Your task to perform on an android device: turn on translation in the chrome app Image 0: 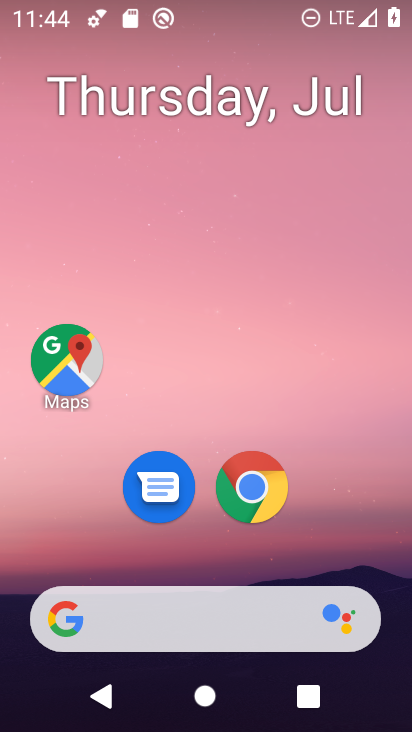
Step 0: click (375, 345)
Your task to perform on an android device: turn on translation in the chrome app Image 1: 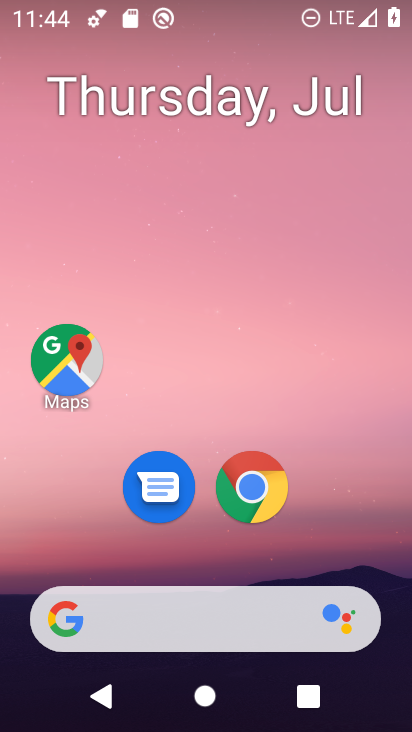
Step 1: drag from (216, 695) to (189, 236)
Your task to perform on an android device: turn on translation in the chrome app Image 2: 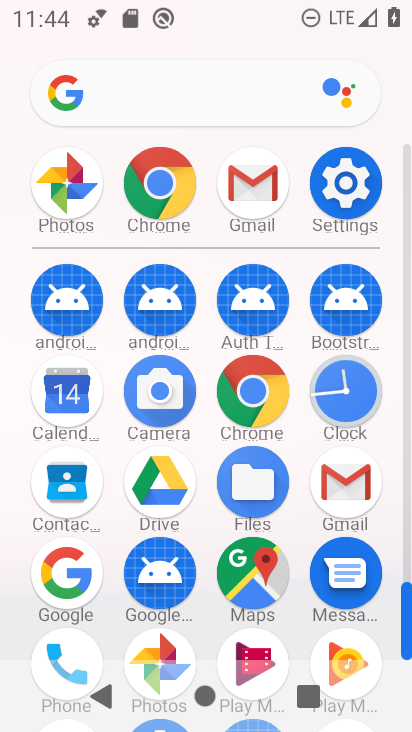
Step 2: click (180, 185)
Your task to perform on an android device: turn on translation in the chrome app Image 3: 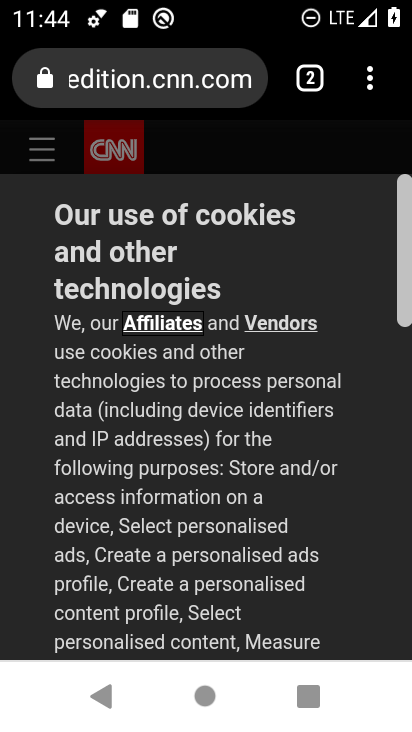
Step 3: click (388, 74)
Your task to perform on an android device: turn on translation in the chrome app Image 4: 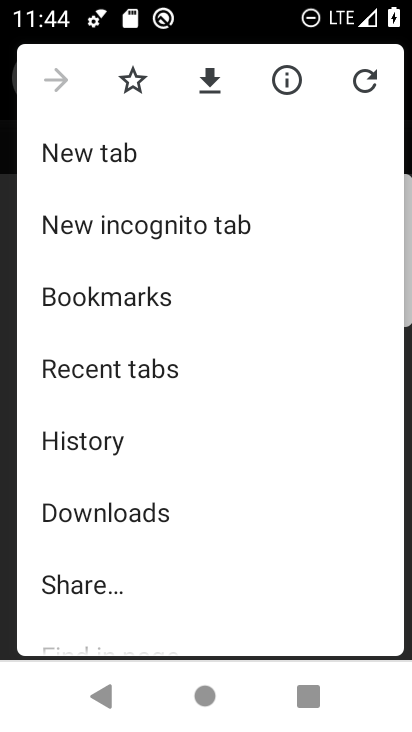
Step 4: task complete